Your task to perform on an android device: open sync settings in chrome Image 0: 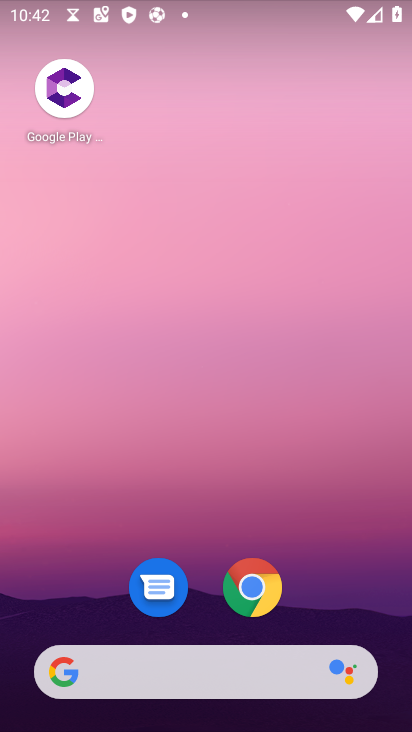
Step 0: click (254, 577)
Your task to perform on an android device: open sync settings in chrome Image 1: 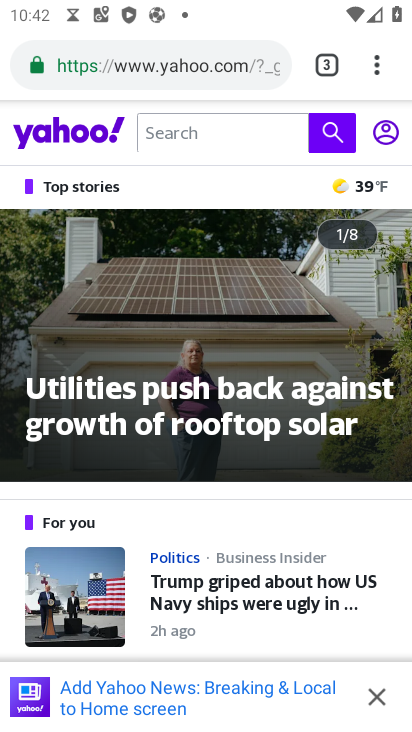
Step 1: drag from (377, 63) to (164, 633)
Your task to perform on an android device: open sync settings in chrome Image 2: 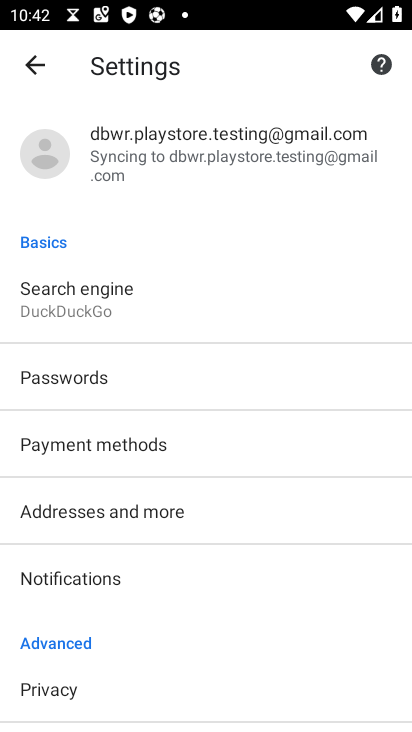
Step 2: drag from (164, 664) to (167, 277)
Your task to perform on an android device: open sync settings in chrome Image 3: 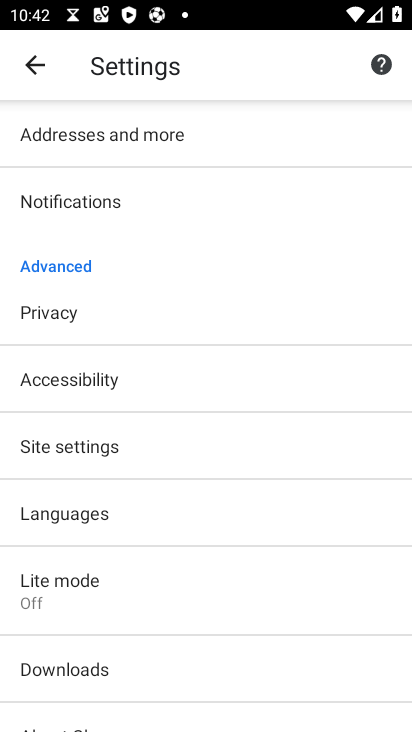
Step 3: click (56, 445)
Your task to perform on an android device: open sync settings in chrome Image 4: 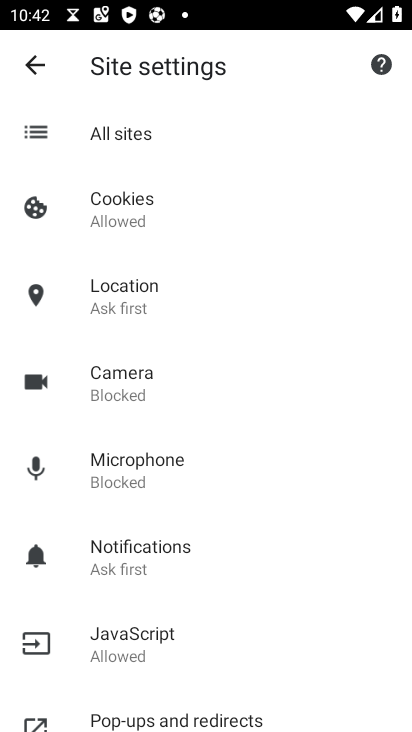
Step 4: drag from (135, 713) to (151, 421)
Your task to perform on an android device: open sync settings in chrome Image 5: 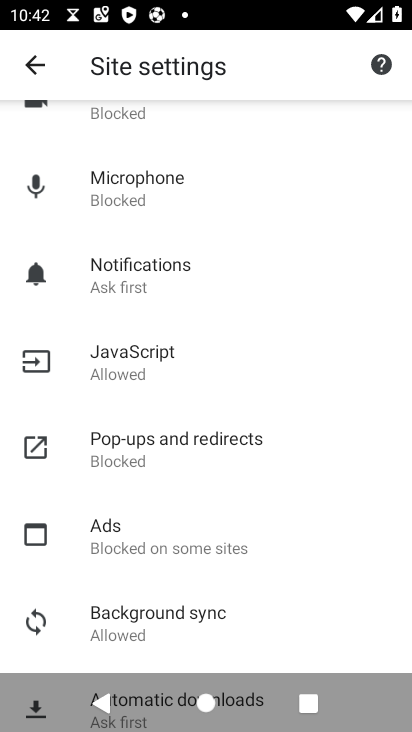
Step 5: click (133, 628)
Your task to perform on an android device: open sync settings in chrome Image 6: 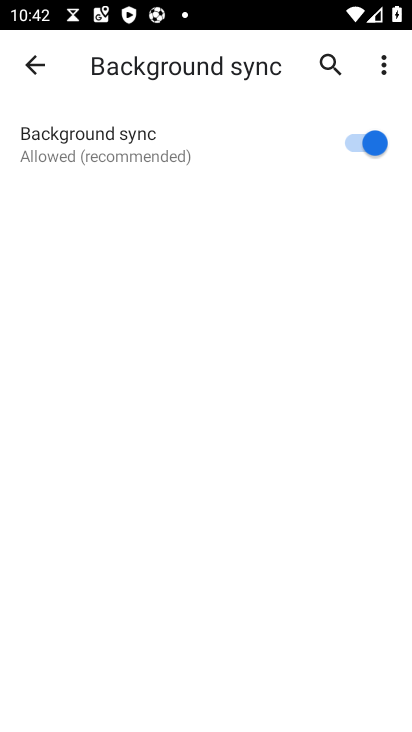
Step 6: task complete